Your task to perform on an android device: toggle show notifications on the lock screen Image 0: 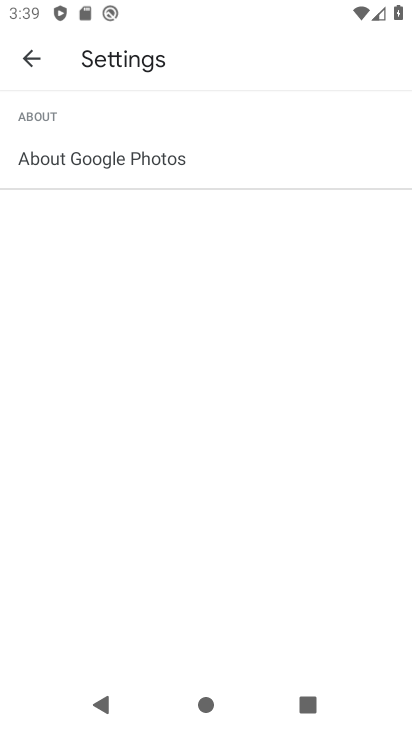
Step 0: press home button
Your task to perform on an android device: toggle show notifications on the lock screen Image 1: 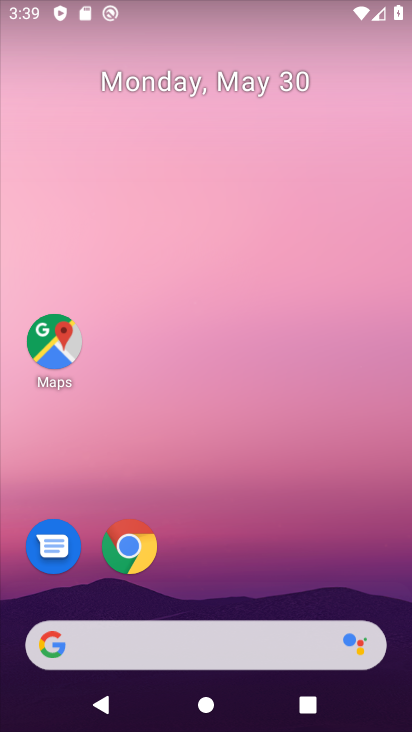
Step 1: drag from (233, 606) to (204, 125)
Your task to perform on an android device: toggle show notifications on the lock screen Image 2: 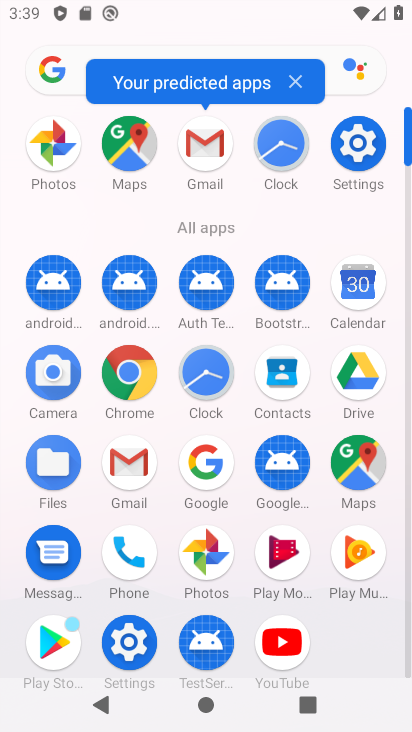
Step 2: click (350, 149)
Your task to perform on an android device: toggle show notifications on the lock screen Image 3: 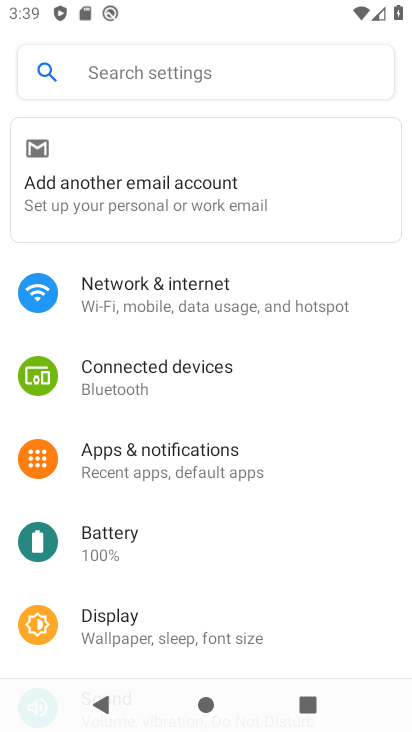
Step 3: click (247, 462)
Your task to perform on an android device: toggle show notifications on the lock screen Image 4: 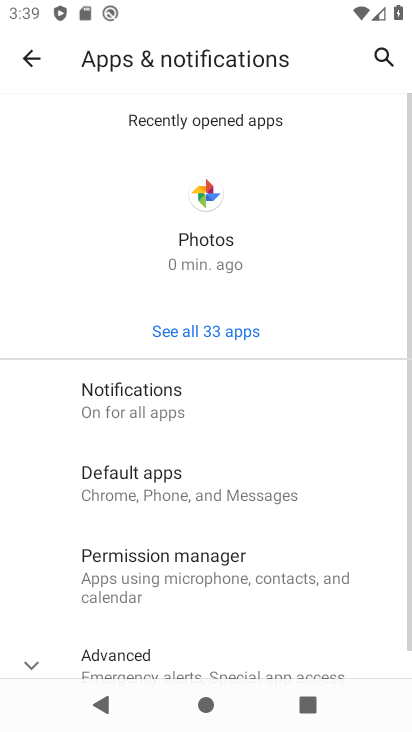
Step 4: click (187, 403)
Your task to perform on an android device: toggle show notifications on the lock screen Image 5: 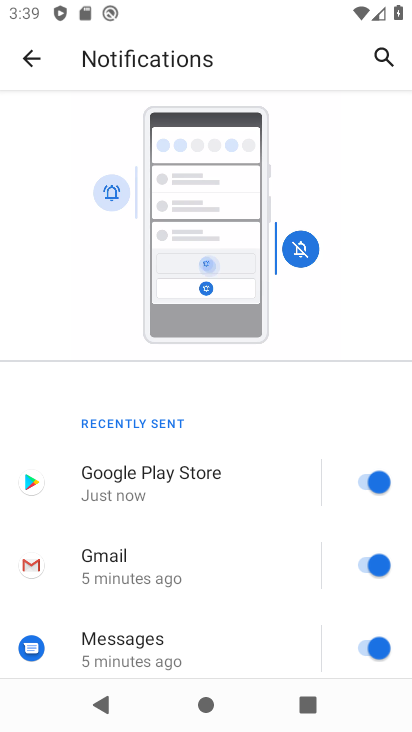
Step 5: drag from (228, 603) to (221, 126)
Your task to perform on an android device: toggle show notifications on the lock screen Image 6: 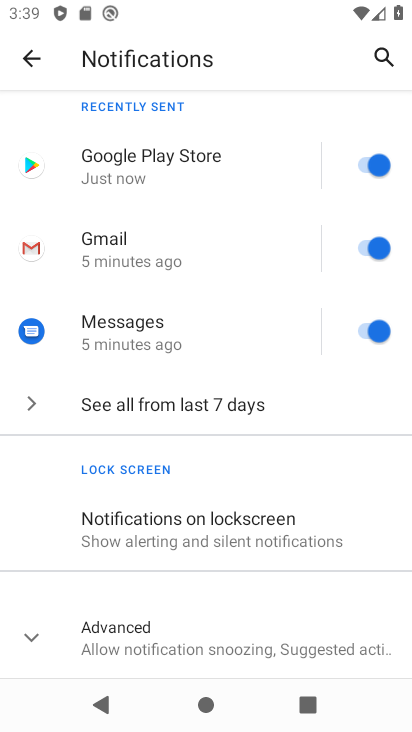
Step 6: click (232, 529)
Your task to perform on an android device: toggle show notifications on the lock screen Image 7: 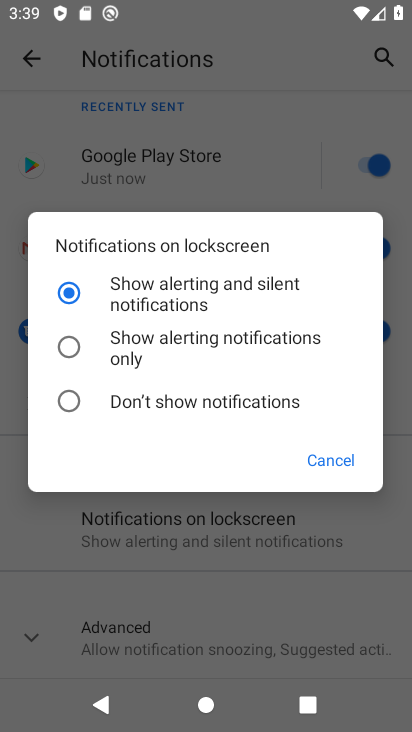
Step 7: click (190, 351)
Your task to perform on an android device: toggle show notifications on the lock screen Image 8: 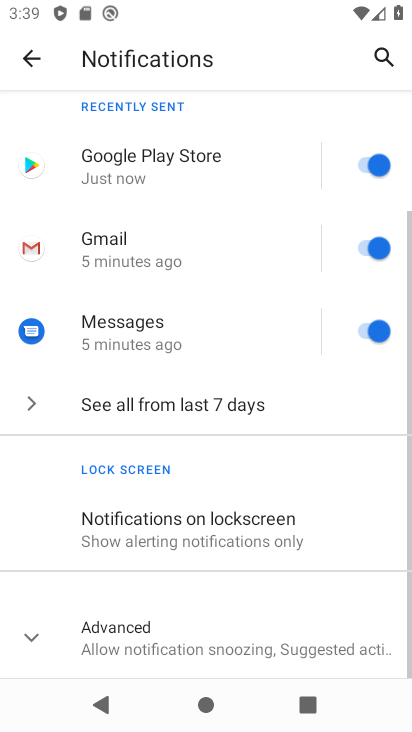
Step 8: task complete